Your task to perform on an android device: Open the Play Movies app and select the watchlist tab. Image 0: 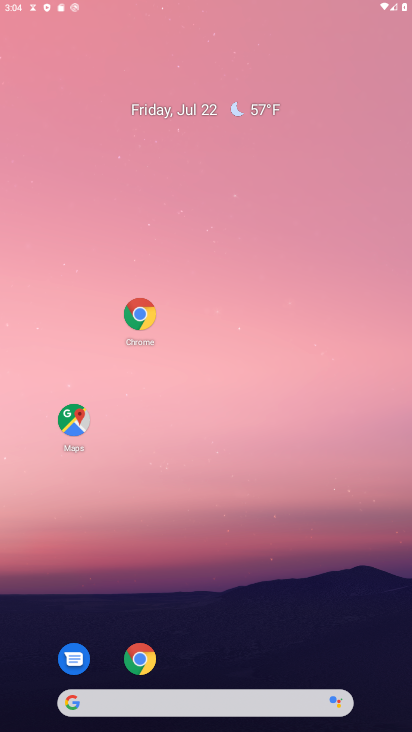
Step 0: click (73, 116)
Your task to perform on an android device: Open the Play Movies app and select the watchlist tab. Image 1: 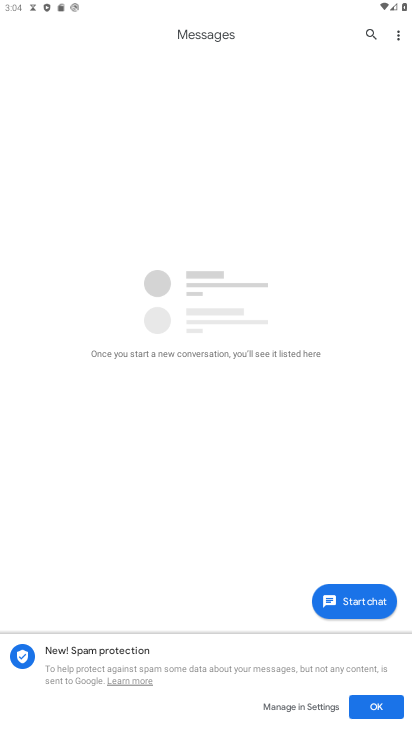
Step 1: press back button
Your task to perform on an android device: Open the Play Movies app and select the watchlist tab. Image 2: 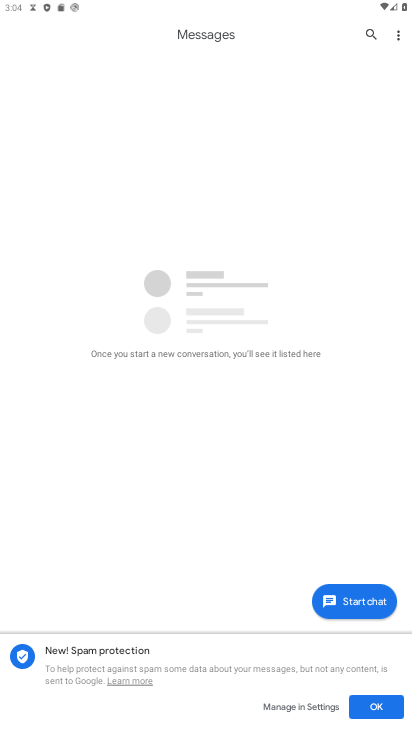
Step 2: drag from (181, 529) to (118, 234)
Your task to perform on an android device: Open the Play Movies app and select the watchlist tab. Image 3: 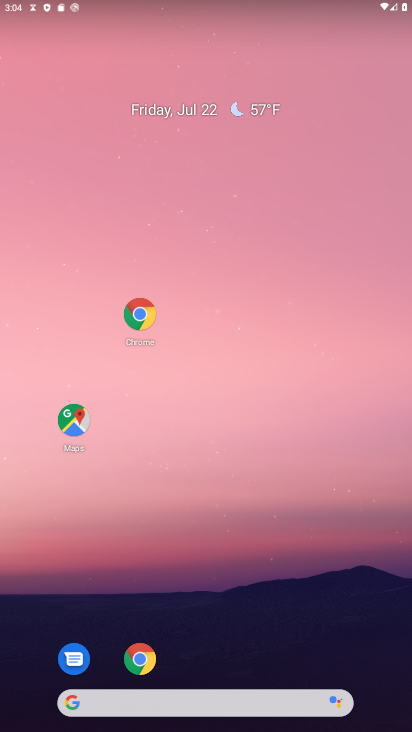
Step 3: drag from (282, 607) to (247, 80)
Your task to perform on an android device: Open the Play Movies app and select the watchlist tab. Image 4: 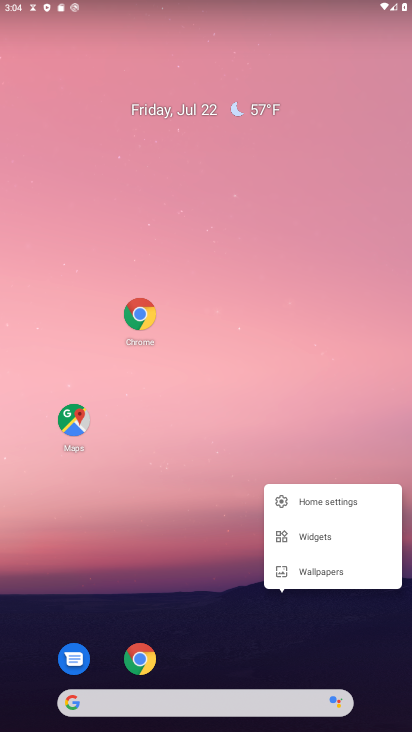
Step 4: drag from (204, 519) to (133, 153)
Your task to perform on an android device: Open the Play Movies app and select the watchlist tab. Image 5: 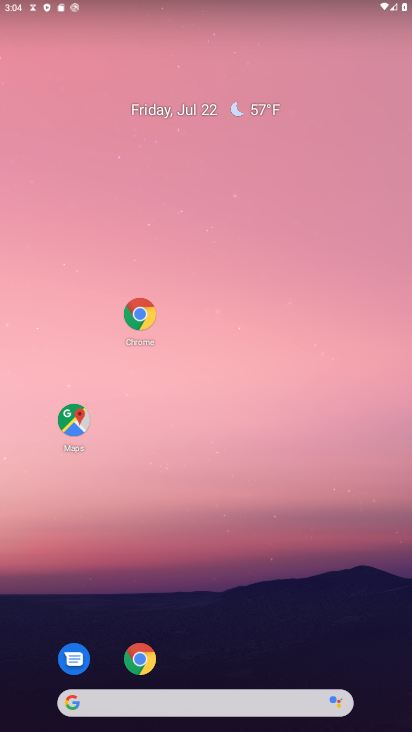
Step 5: drag from (200, 531) to (129, 43)
Your task to perform on an android device: Open the Play Movies app and select the watchlist tab. Image 6: 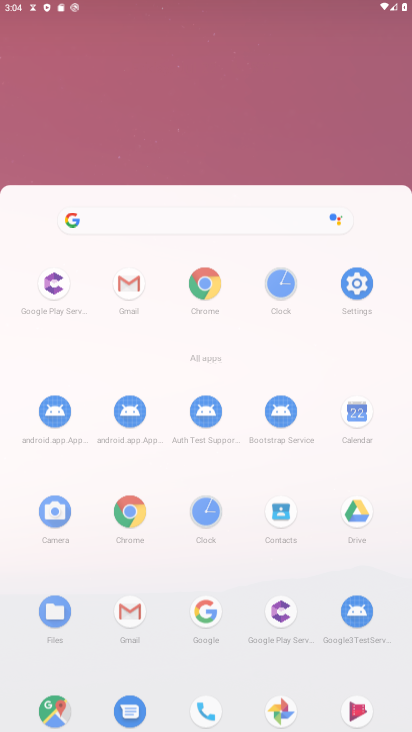
Step 6: click (158, 46)
Your task to perform on an android device: Open the Play Movies app and select the watchlist tab. Image 7: 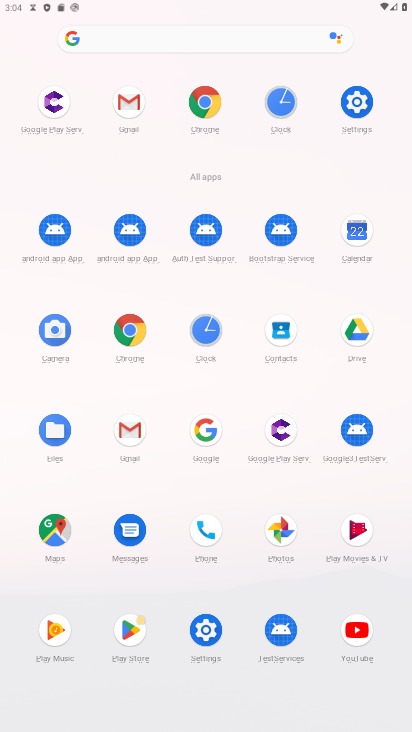
Step 7: click (352, 541)
Your task to perform on an android device: Open the Play Movies app and select the watchlist tab. Image 8: 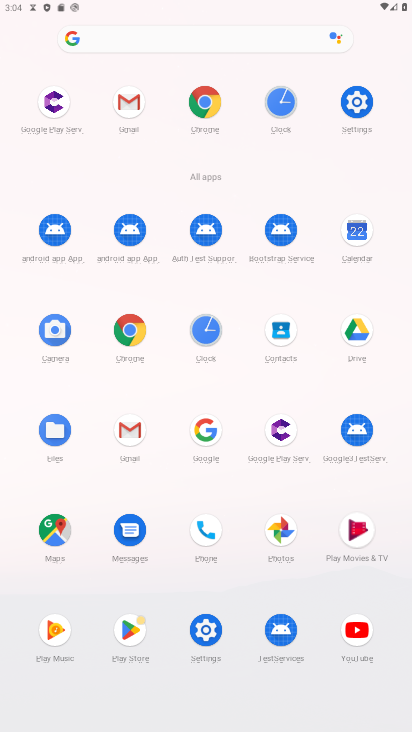
Step 8: click (355, 535)
Your task to perform on an android device: Open the Play Movies app and select the watchlist tab. Image 9: 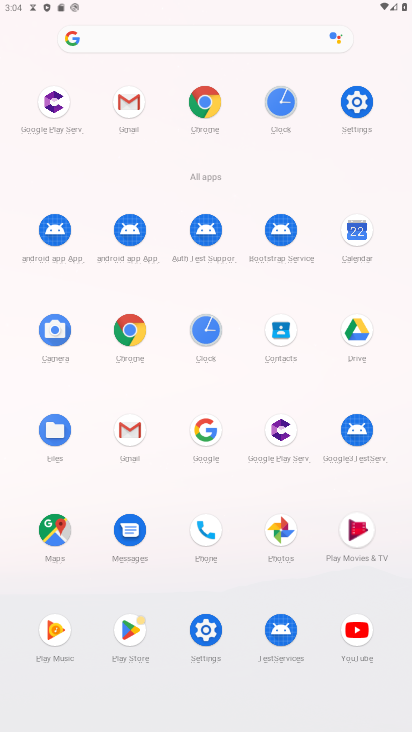
Step 9: click (355, 535)
Your task to perform on an android device: Open the Play Movies app and select the watchlist tab. Image 10: 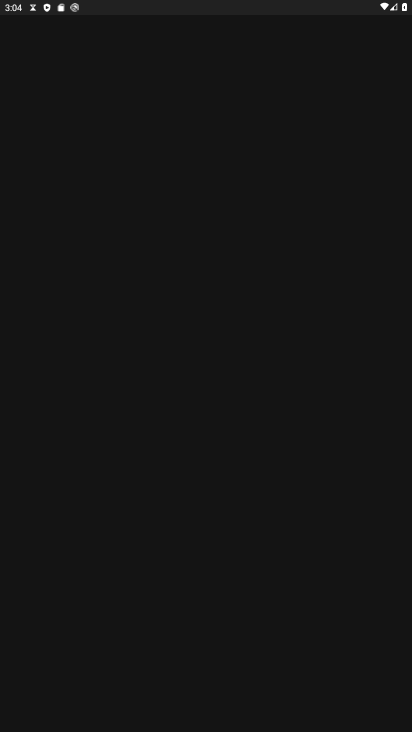
Step 10: click (355, 534)
Your task to perform on an android device: Open the Play Movies app and select the watchlist tab. Image 11: 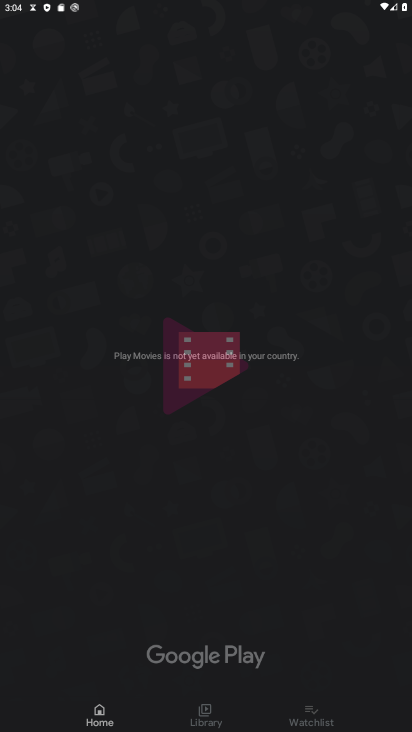
Step 11: click (202, 360)
Your task to perform on an android device: Open the Play Movies app and select the watchlist tab. Image 12: 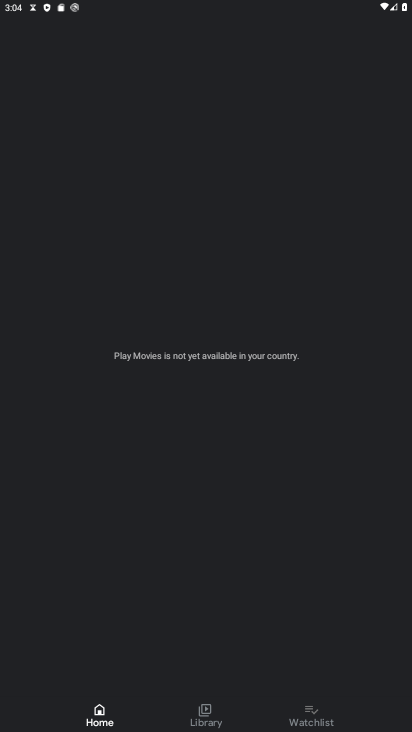
Step 12: click (263, 597)
Your task to perform on an android device: Open the Play Movies app and select the watchlist tab. Image 13: 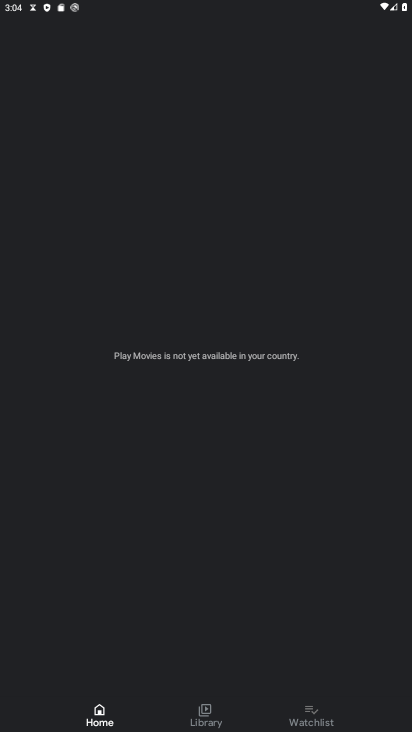
Step 13: drag from (261, 599) to (300, 619)
Your task to perform on an android device: Open the Play Movies app and select the watchlist tab. Image 14: 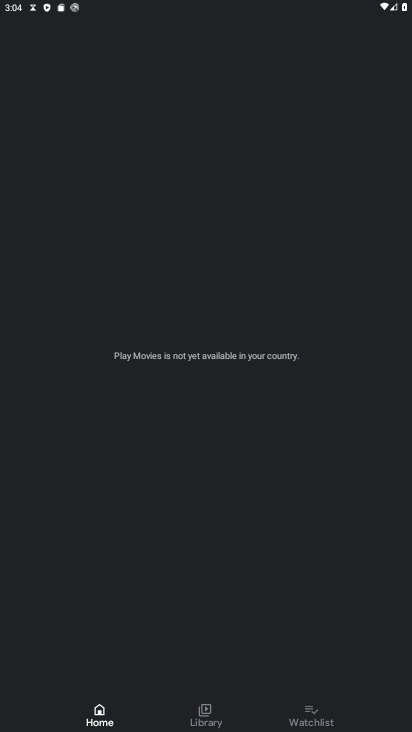
Step 14: click (311, 711)
Your task to perform on an android device: Open the Play Movies app and select the watchlist tab. Image 15: 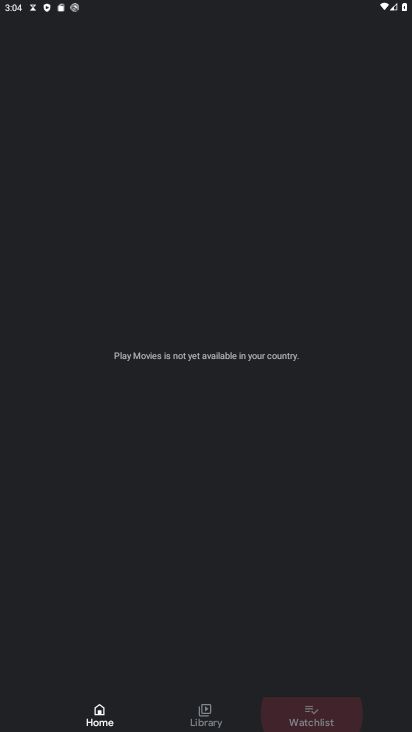
Step 15: click (312, 711)
Your task to perform on an android device: Open the Play Movies app and select the watchlist tab. Image 16: 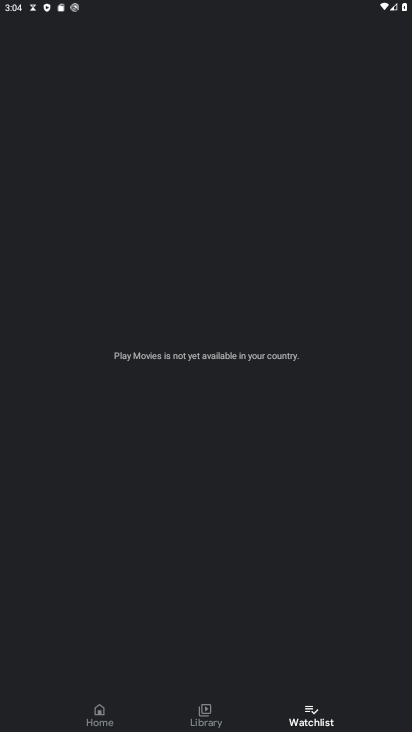
Step 16: click (316, 717)
Your task to perform on an android device: Open the Play Movies app and select the watchlist tab. Image 17: 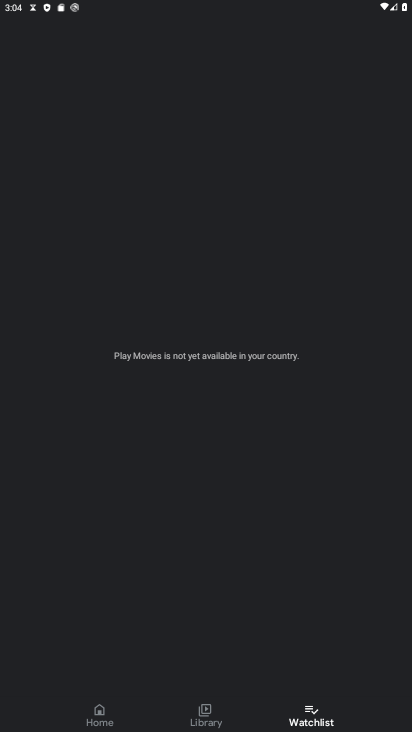
Step 17: task complete